Your task to perform on an android device: turn off improve location accuracy Image 0: 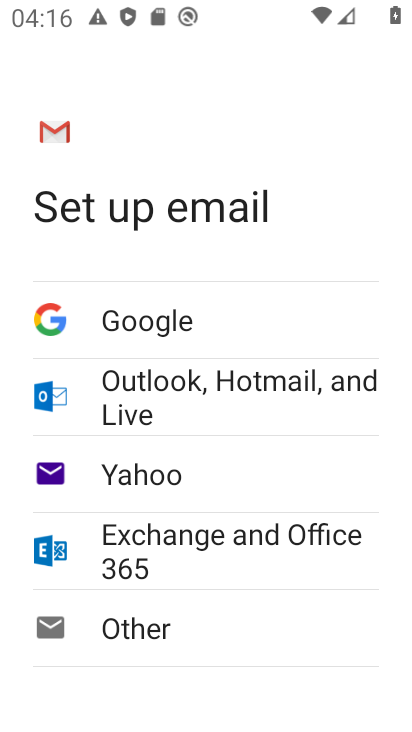
Step 0: drag from (210, 709) to (203, 261)
Your task to perform on an android device: turn off improve location accuracy Image 1: 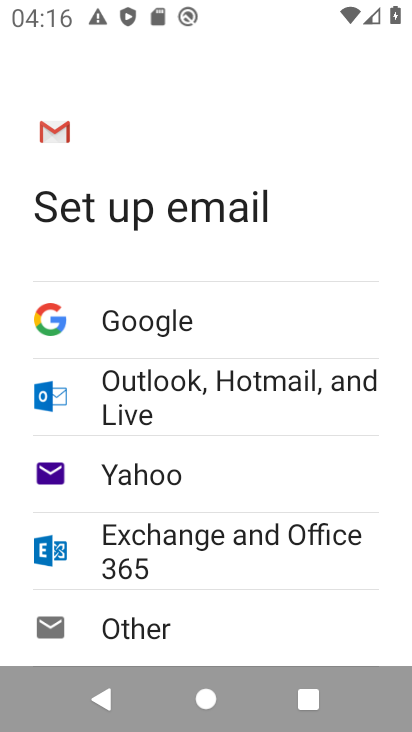
Step 1: press back button
Your task to perform on an android device: turn off improve location accuracy Image 2: 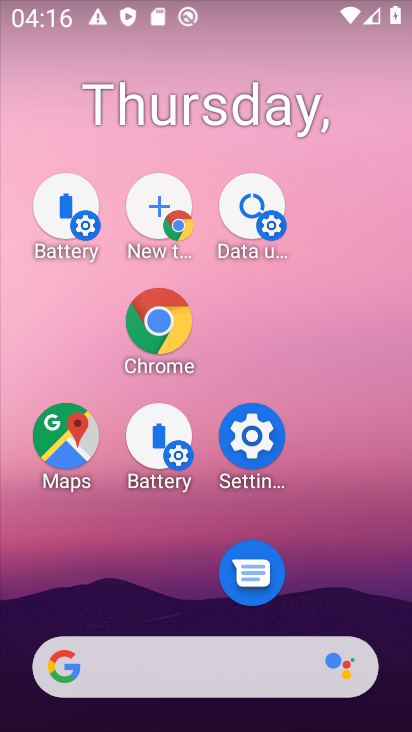
Step 2: drag from (194, 648) to (100, 183)
Your task to perform on an android device: turn off improve location accuracy Image 3: 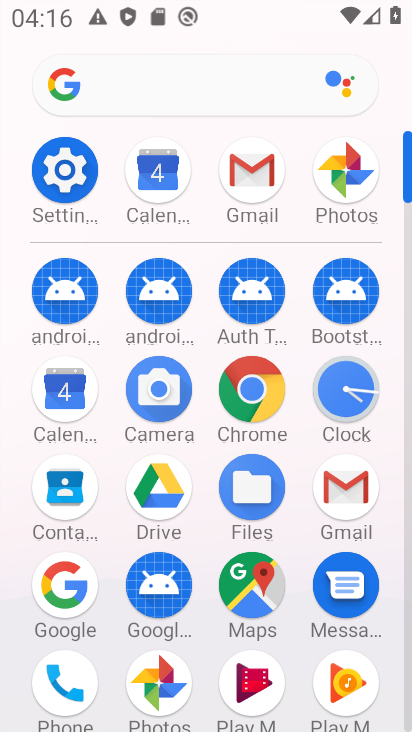
Step 3: click (140, 159)
Your task to perform on an android device: turn off improve location accuracy Image 4: 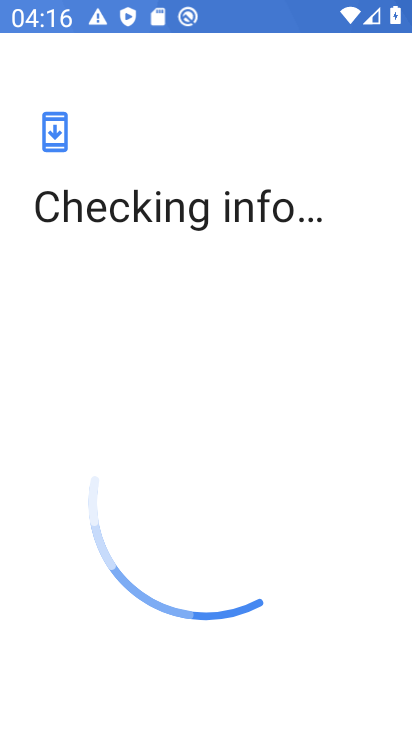
Step 4: press back button
Your task to perform on an android device: turn off improve location accuracy Image 5: 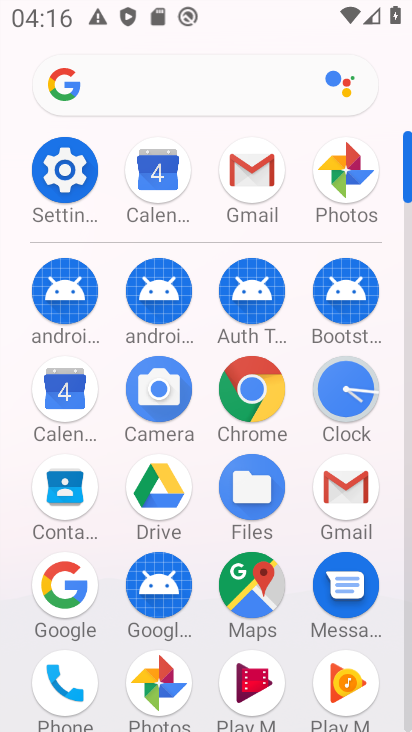
Step 5: click (59, 191)
Your task to perform on an android device: turn off improve location accuracy Image 6: 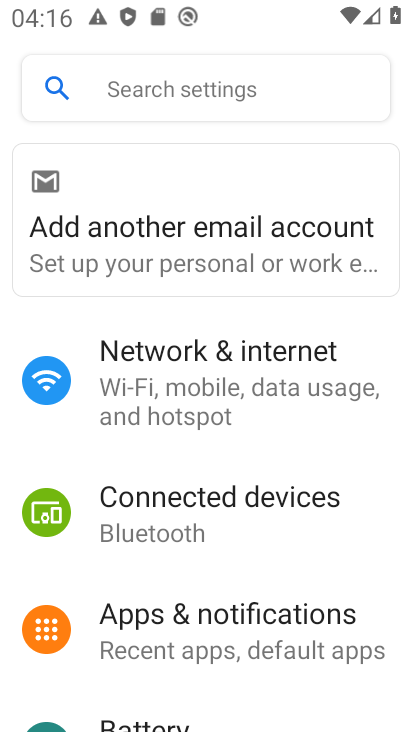
Step 6: click (209, 254)
Your task to perform on an android device: turn off improve location accuracy Image 7: 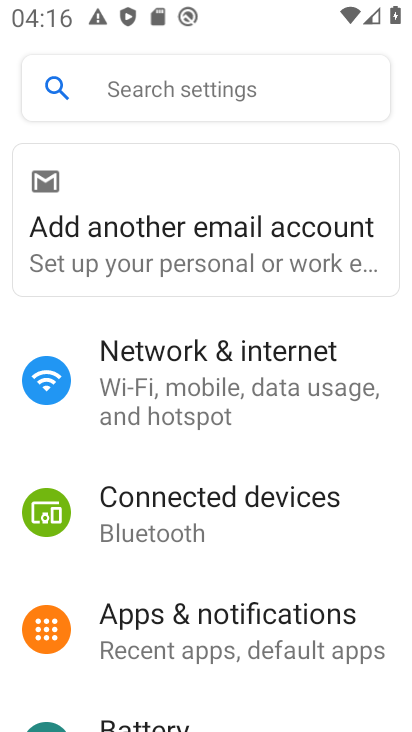
Step 7: drag from (250, 577) to (281, 348)
Your task to perform on an android device: turn off improve location accuracy Image 8: 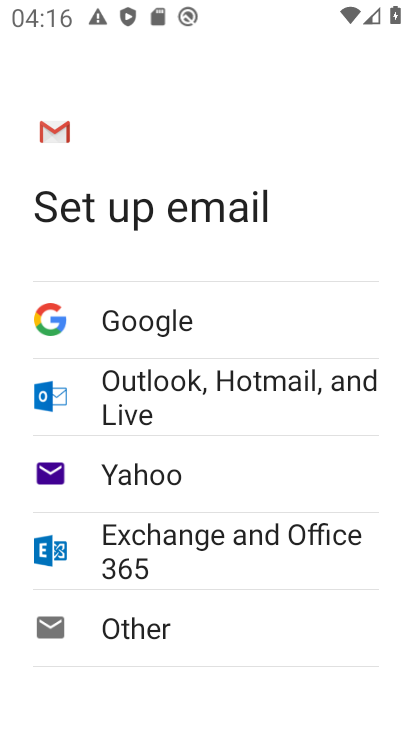
Step 8: press back button
Your task to perform on an android device: turn off improve location accuracy Image 9: 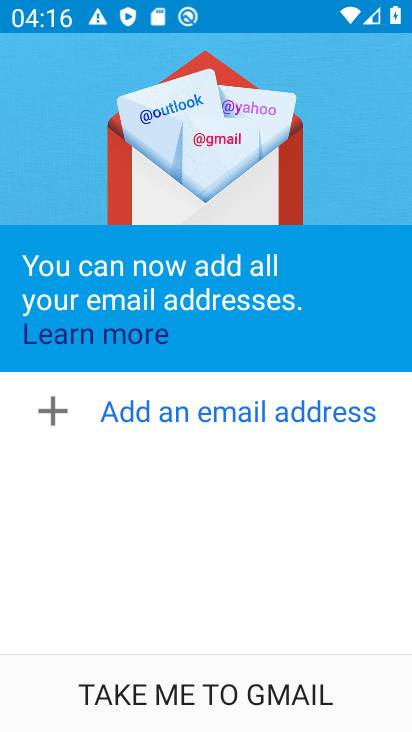
Step 9: press back button
Your task to perform on an android device: turn off improve location accuracy Image 10: 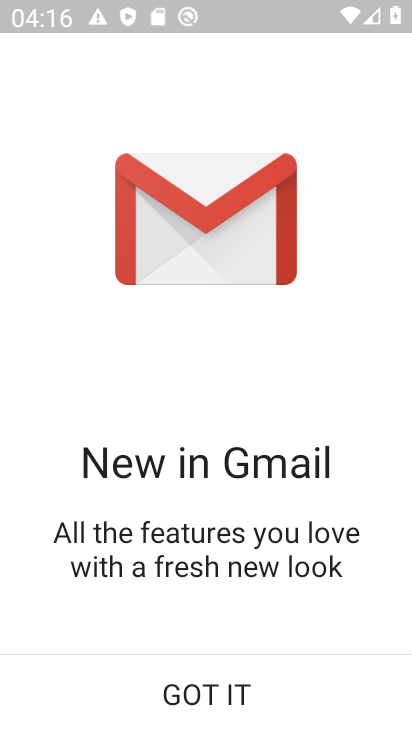
Step 10: press back button
Your task to perform on an android device: turn off improve location accuracy Image 11: 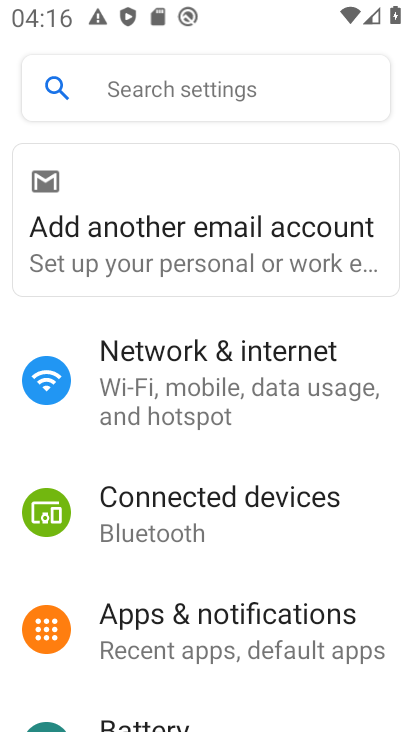
Step 11: drag from (181, 499) to (163, 269)
Your task to perform on an android device: turn off improve location accuracy Image 12: 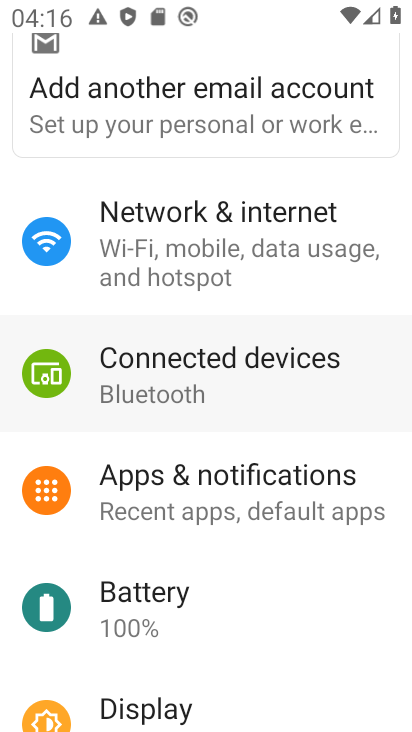
Step 12: drag from (192, 494) to (169, 308)
Your task to perform on an android device: turn off improve location accuracy Image 13: 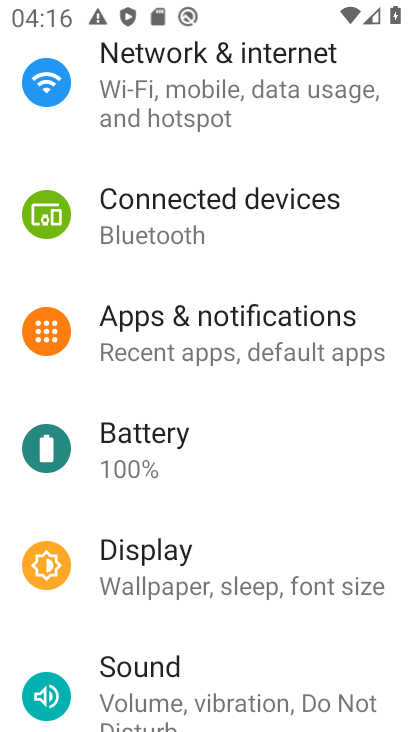
Step 13: drag from (212, 531) to (181, 327)
Your task to perform on an android device: turn off improve location accuracy Image 14: 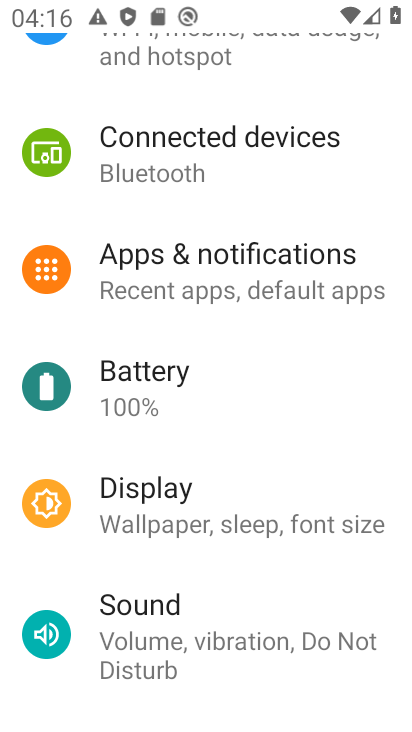
Step 14: drag from (183, 469) to (196, 279)
Your task to perform on an android device: turn off improve location accuracy Image 15: 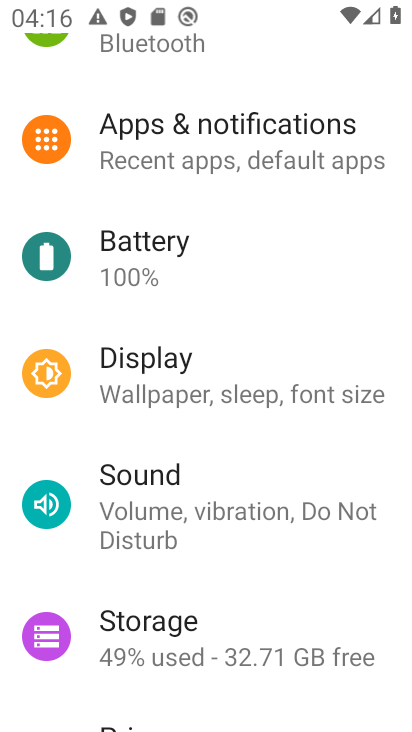
Step 15: drag from (145, 555) to (150, 433)
Your task to perform on an android device: turn off improve location accuracy Image 16: 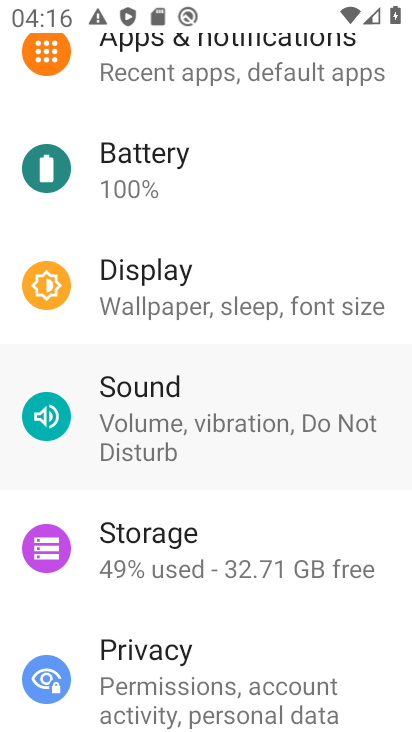
Step 16: drag from (177, 574) to (144, 401)
Your task to perform on an android device: turn off improve location accuracy Image 17: 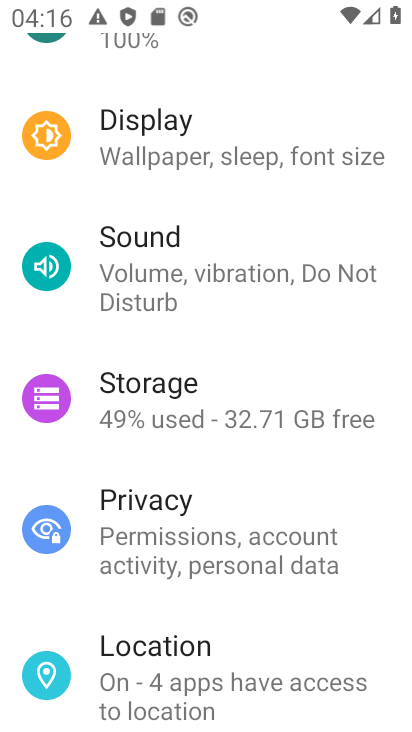
Step 17: drag from (147, 534) to (154, 377)
Your task to perform on an android device: turn off improve location accuracy Image 18: 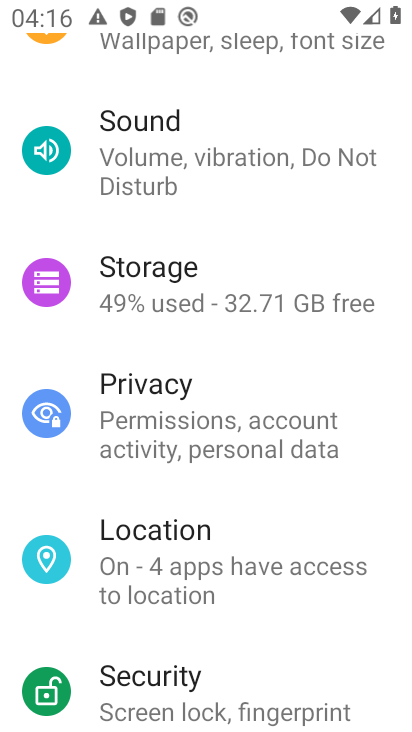
Step 18: click (147, 546)
Your task to perform on an android device: turn off improve location accuracy Image 19: 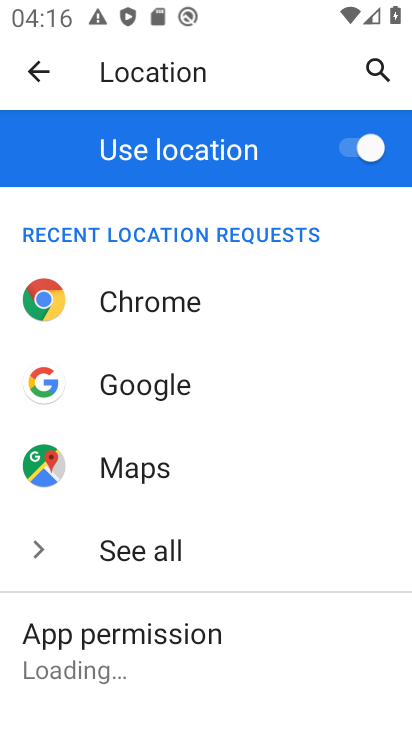
Step 19: drag from (166, 528) to (153, 374)
Your task to perform on an android device: turn off improve location accuracy Image 20: 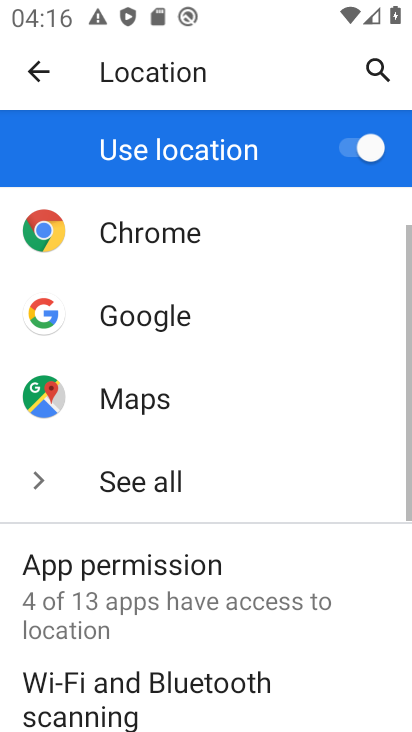
Step 20: drag from (211, 523) to (211, 396)
Your task to perform on an android device: turn off improve location accuracy Image 21: 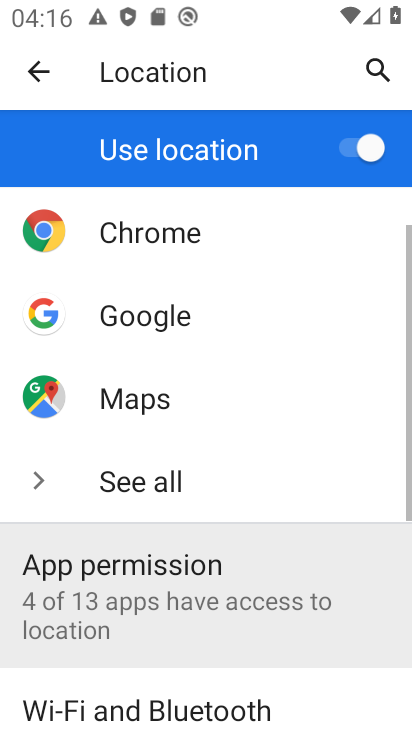
Step 21: drag from (208, 541) to (194, 409)
Your task to perform on an android device: turn off improve location accuracy Image 22: 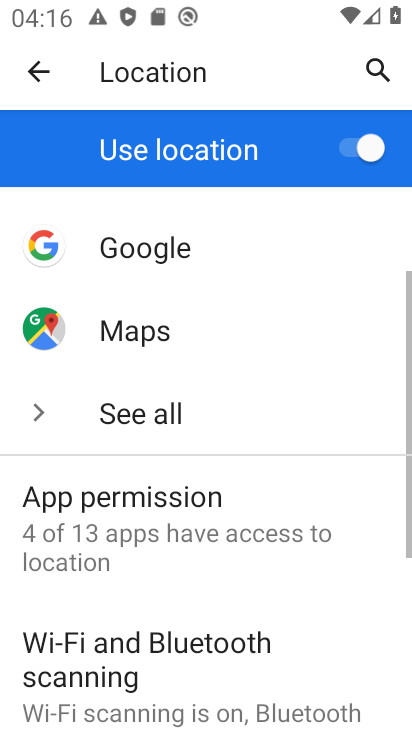
Step 22: drag from (158, 577) to (151, 389)
Your task to perform on an android device: turn off improve location accuracy Image 23: 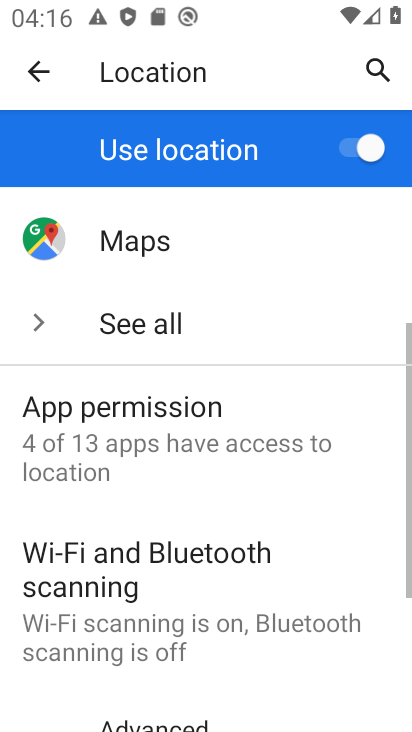
Step 23: drag from (148, 643) to (177, 445)
Your task to perform on an android device: turn off improve location accuracy Image 24: 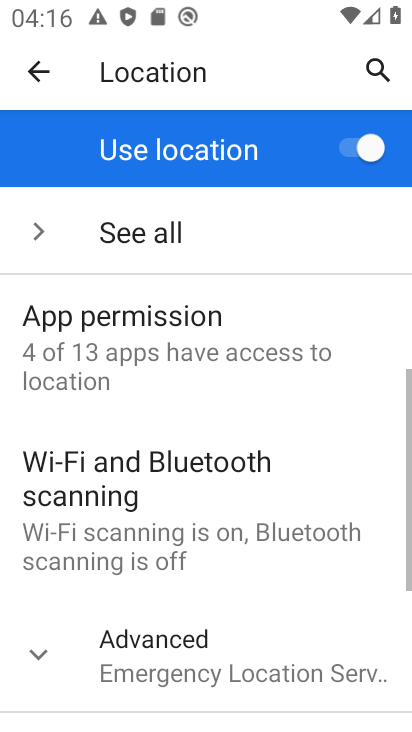
Step 24: drag from (201, 609) to (217, 406)
Your task to perform on an android device: turn off improve location accuracy Image 25: 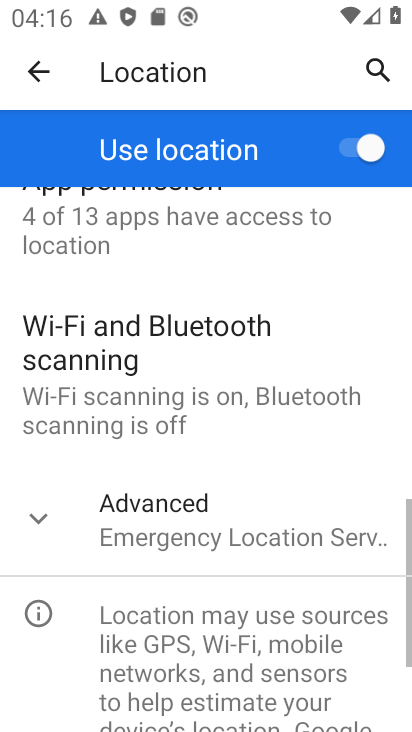
Step 25: drag from (218, 593) to (244, 409)
Your task to perform on an android device: turn off improve location accuracy Image 26: 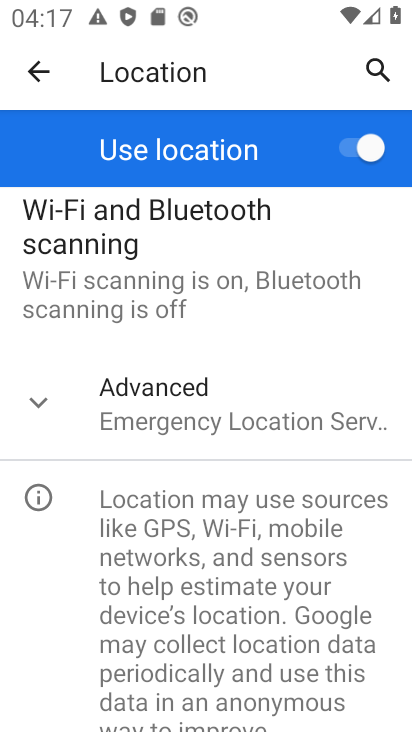
Step 26: click (191, 418)
Your task to perform on an android device: turn off improve location accuracy Image 27: 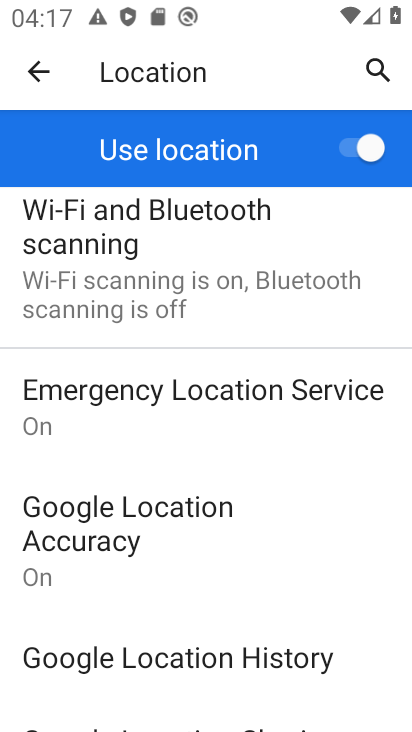
Step 27: drag from (251, 523) to (251, 321)
Your task to perform on an android device: turn off improve location accuracy Image 28: 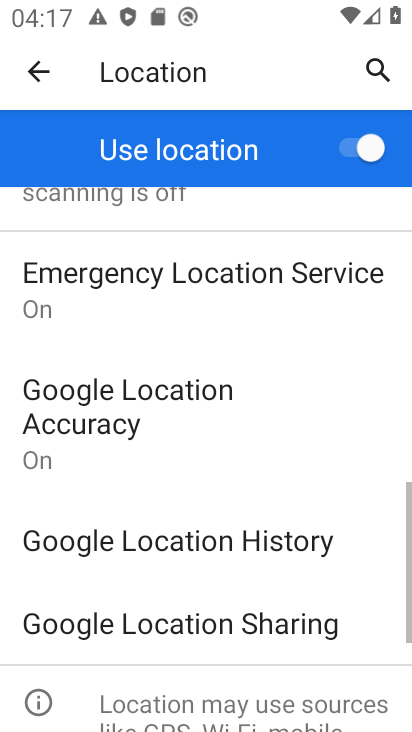
Step 28: drag from (216, 547) to (247, 338)
Your task to perform on an android device: turn off improve location accuracy Image 29: 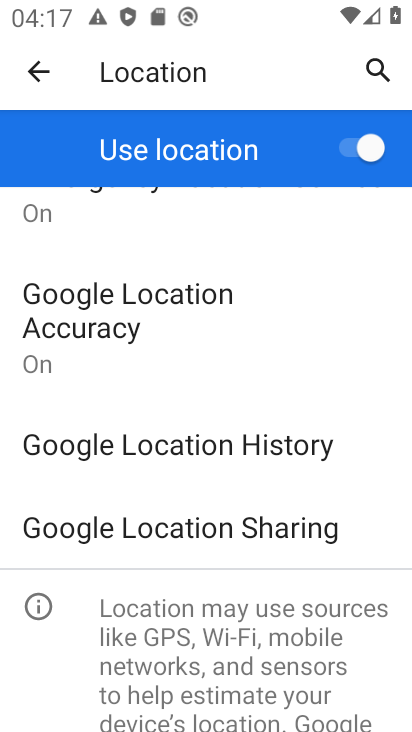
Step 29: click (129, 339)
Your task to perform on an android device: turn off improve location accuracy Image 30: 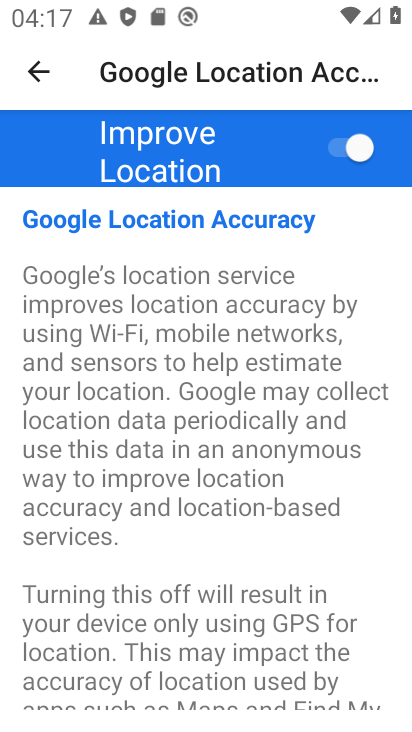
Step 30: click (354, 129)
Your task to perform on an android device: turn off improve location accuracy Image 31: 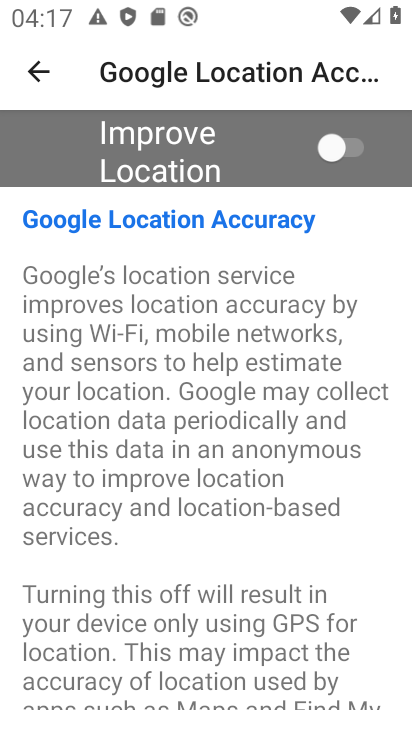
Step 31: task complete